Your task to perform on an android device: Open privacy settings Image 0: 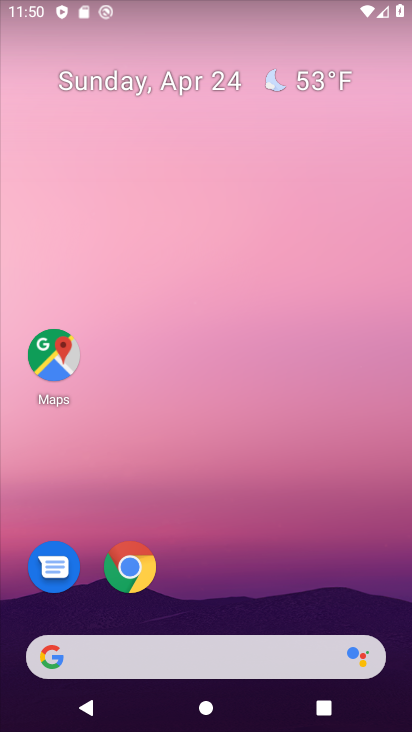
Step 0: drag from (244, 283) to (282, 75)
Your task to perform on an android device: Open privacy settings Image 1: 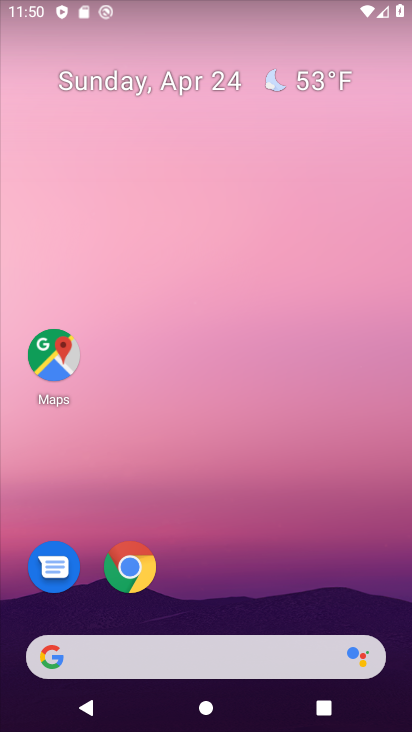
Step 1: drag from (270, 536) to (302, 41)
Your task to perform on an android device: Open privacy settings Image 2: 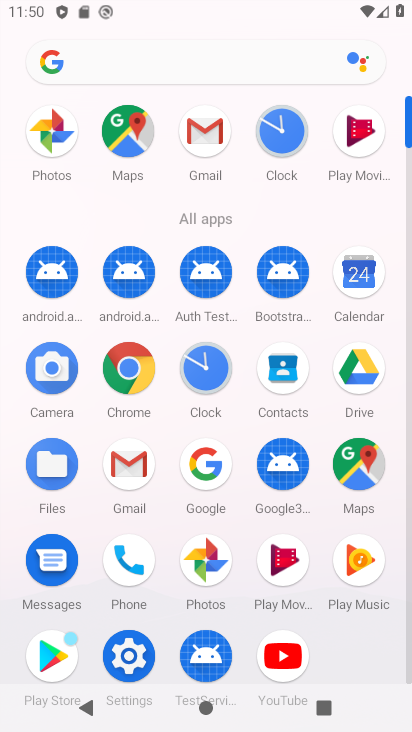
Step 2: click (123, 647)
Your task to perform on an android device: Open privacy settings Image 3: 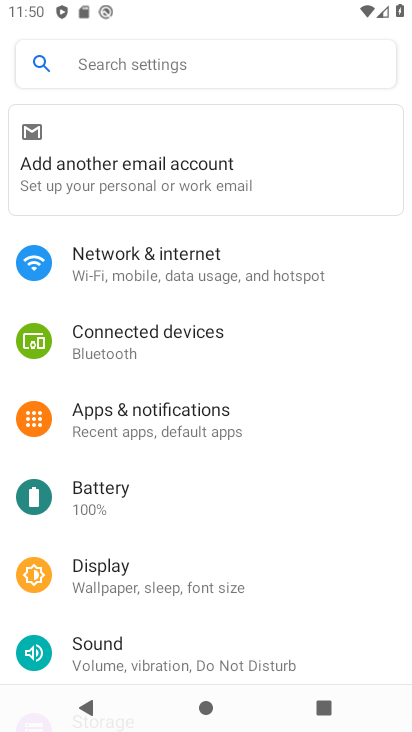
Step 3: drag from (213, 625) to (256, 219)
Your task to perform on an android device: Open privacy settings Image 4: 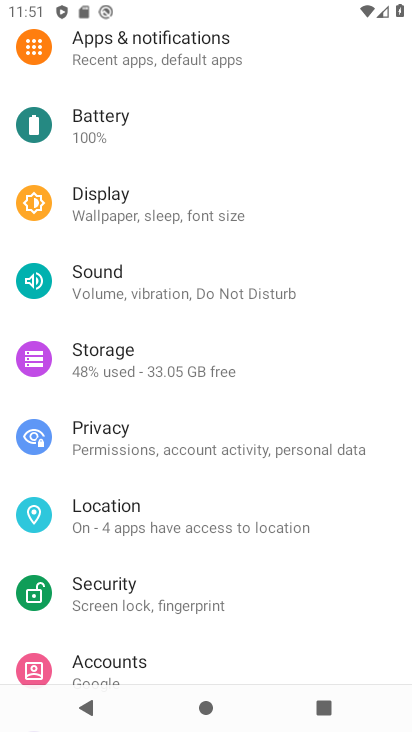
Step 4: click (215, 443)
Your task to perform on an android device: Open privacy settings Image 5: 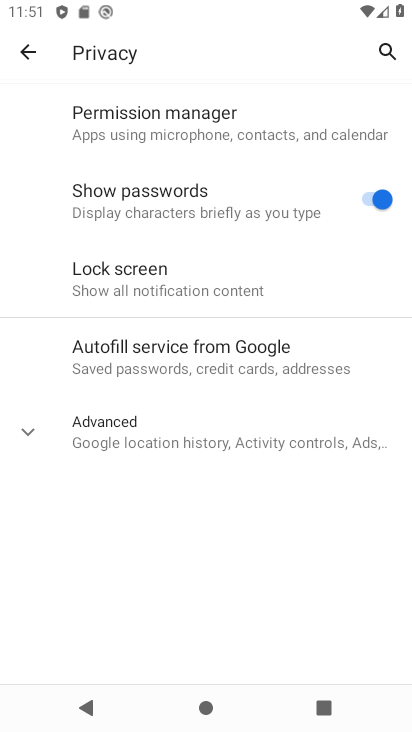
Step 5: task complete